Your task to perform on an android device: turn on priority inbox in the gmail app Image 0: 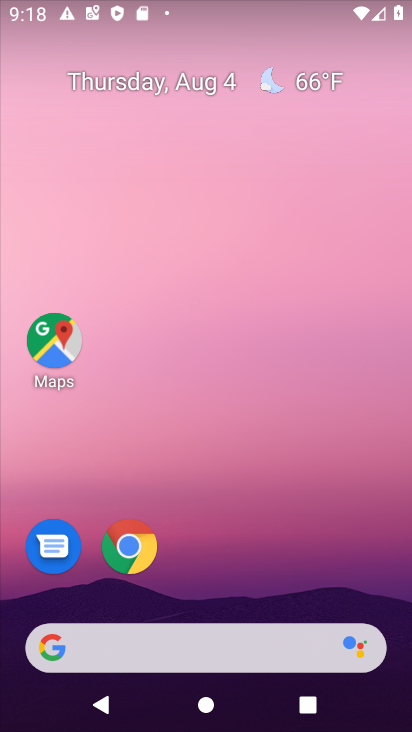
Step 0: click (287, 181)
Your task to perform on an android device: turn on priority inbox in the gmail app Image 1: 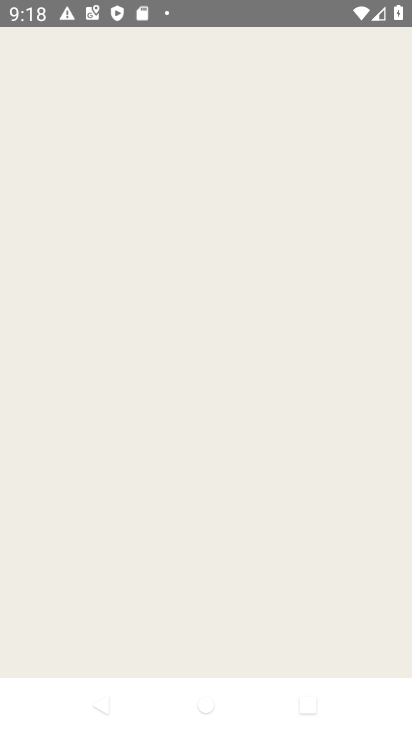
Step 1: press home button
Your task to perform on an android device: turn on priority inbox in the gmail app Image 2: 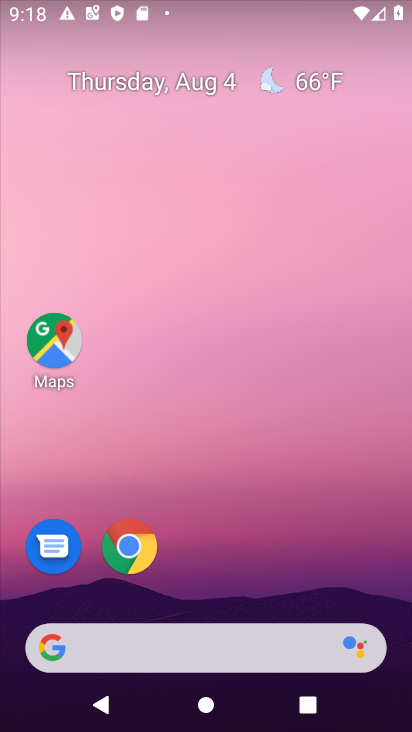
Step 2: drag from (232, 613) to (328, 124)
Your task to perform on an android device: turn on priority inbox in the gmail app Image 3: 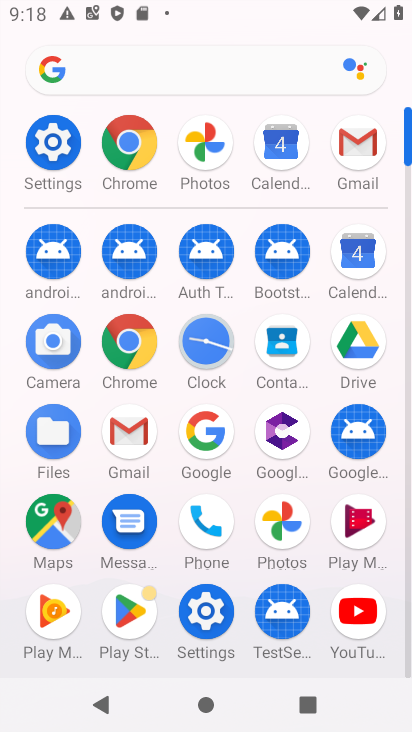
Step 3: click (359, 137)
Your task to perform on an android device: turn on priority inbox in the gmail app Image 4: 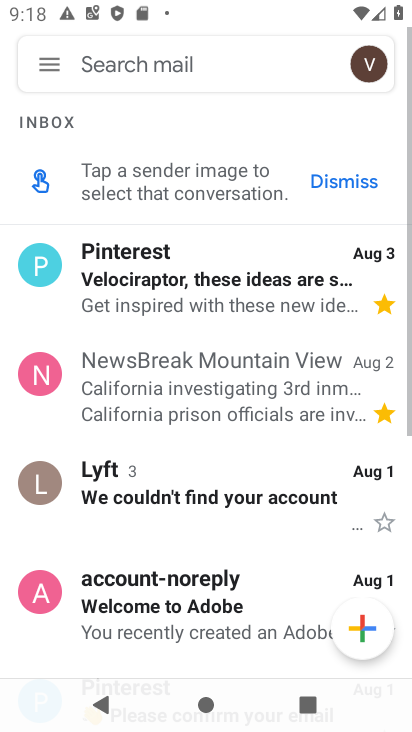
Step 4: click (56, 57)
Your task to perform on an android device: turn on priority inbox in the gmail app Image 5: 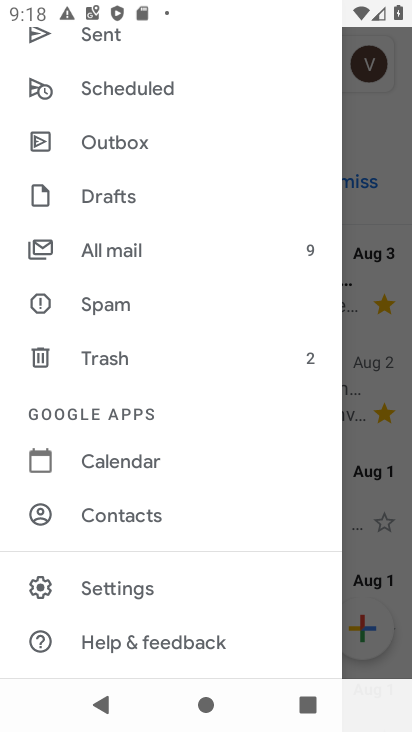
Step 5: click (114, 596)
Your task to perform on an android device: turn on priority inbox in the gmail app Image 6: 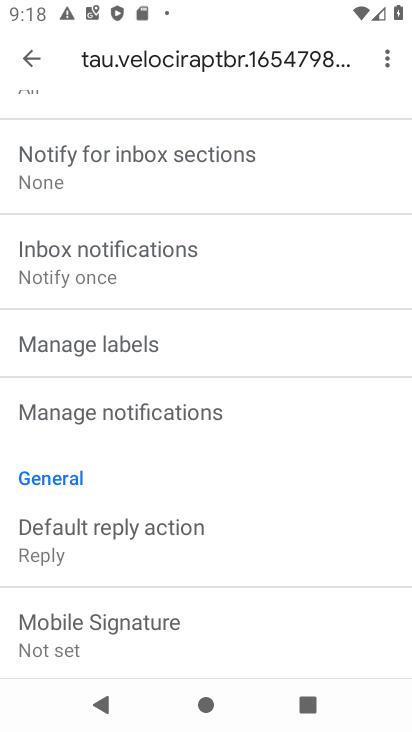
Step 6: drag from (270, 161) to (169, 670)
Your task to perform on an android device: turn on priority inbox in the gmail app Image 7: 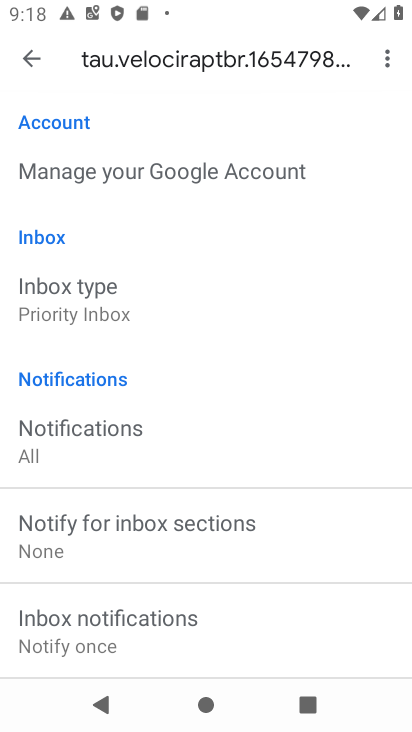
Step 7: click (70, 296)
Your task to perform on an android device: turn on priority inbox in the gmail app Image 8: 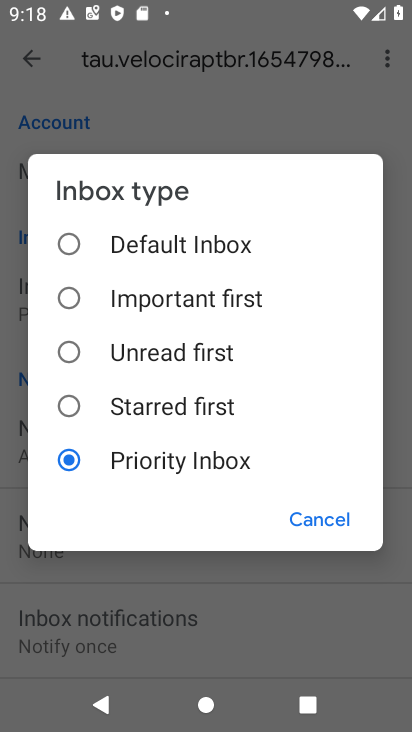
Step 8: task complete